Your task to perform on an android device: change the clock style Image 0: 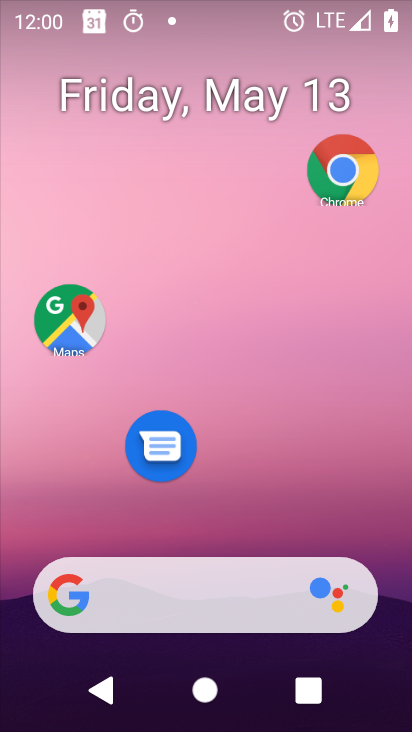
Step 0: drag from (214, 564) to (308, 85)
Your task to perform on an android device: change the clock style Image 1: 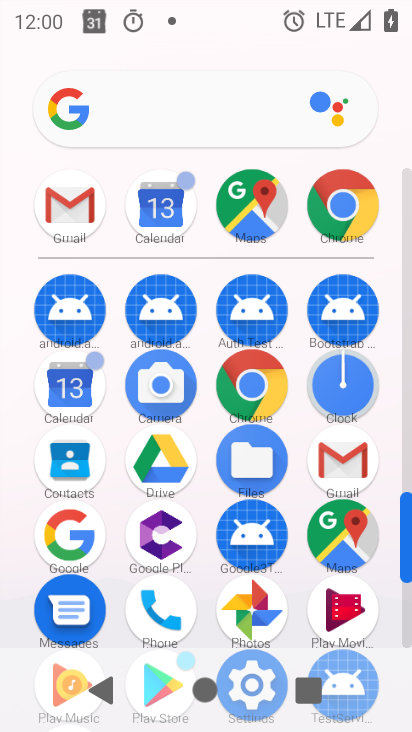
Step 1: click (347, 386)
Your task to perform on an android device: change the clock style Image 2: 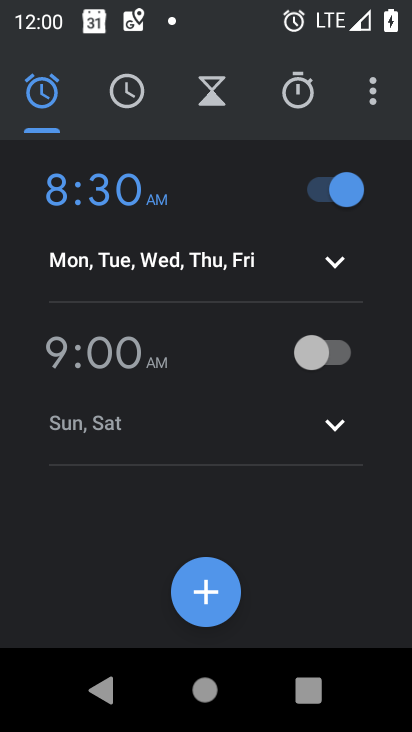
Step 2: click (363, 95)
Your task to perform on an android device: change the clock style Image 3: 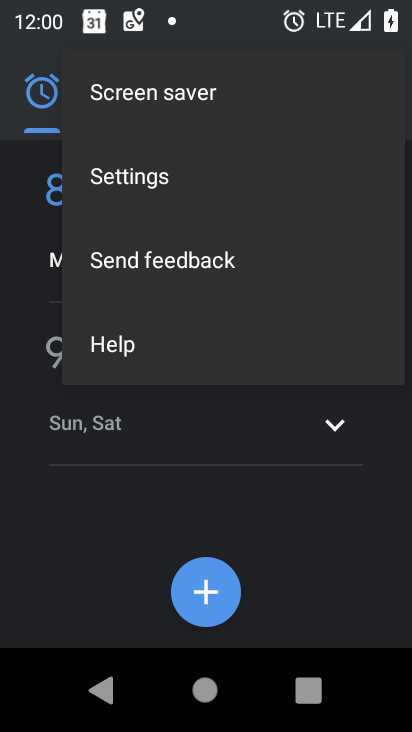
Step 3: click (168, 192)
Your task to perform on an android device: change the clock style Image 4: 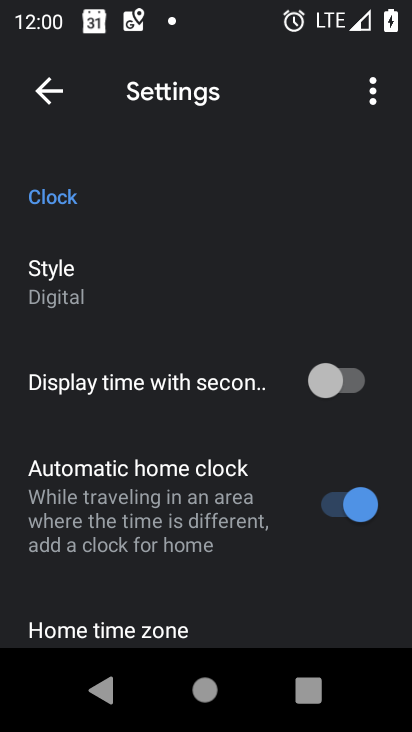
Step 4: drag from (94, 290) to (56, 290)
Your task to perform on an android device: change the clock style Image 5: 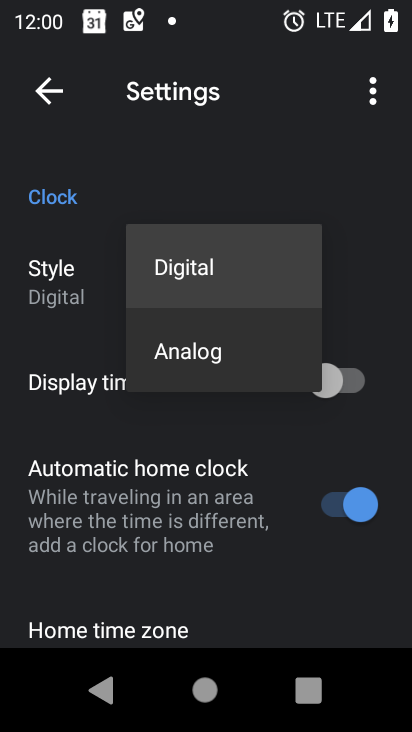
Step 5: click (189, 356)
Your task to perform on an android device: change the clock style Image 6: 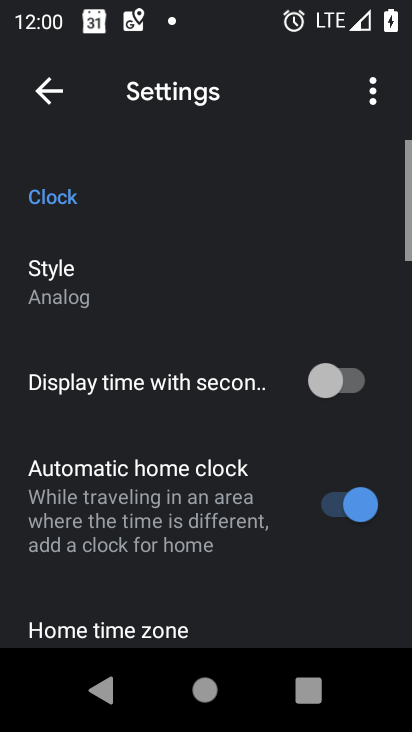
Step 6: task complete